Your task to perform on an android device: check data usage Image 0: 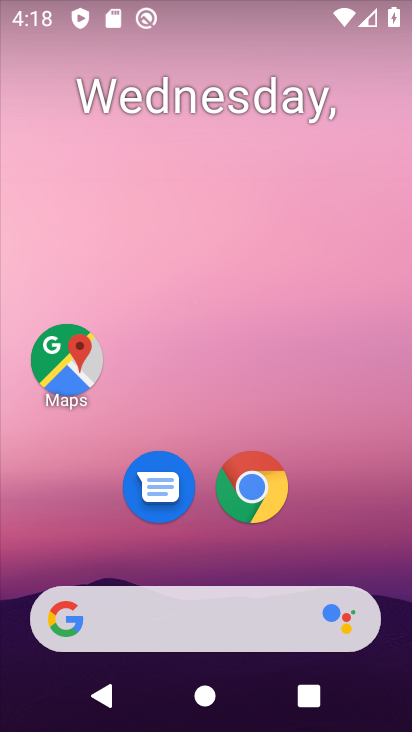
Step 0: drag from (339, 415) to (337, 71)
Your task to perform on an android device: check data usage Image 1: 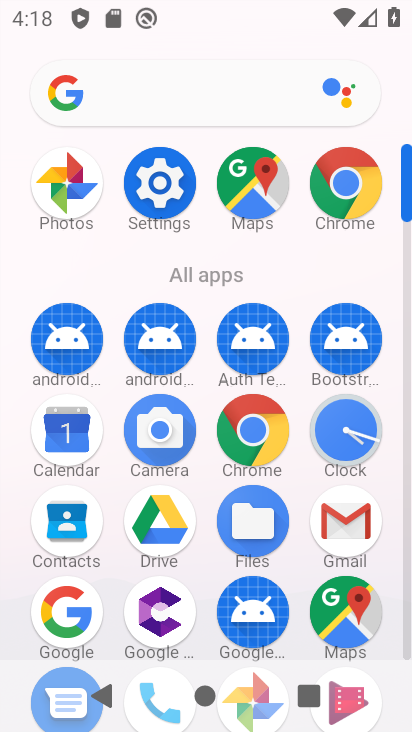
Step 1: click (158, 176)
Your task to perform on an android device: check data usage Image 2: 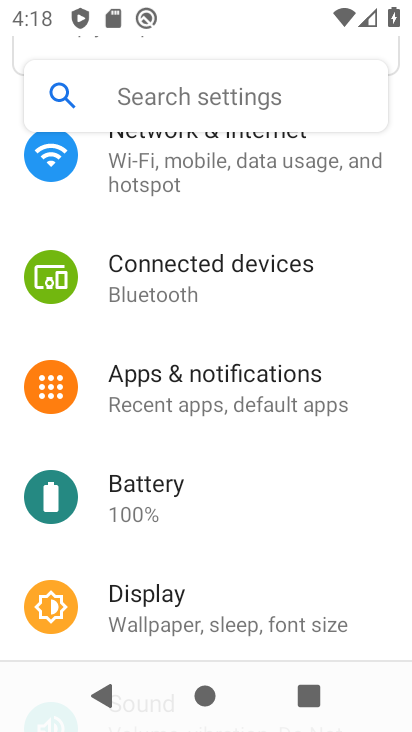
Step 2: drag from (150, 199) to (157, 535)
Your task to perform on an android device: check data usage Image 3: 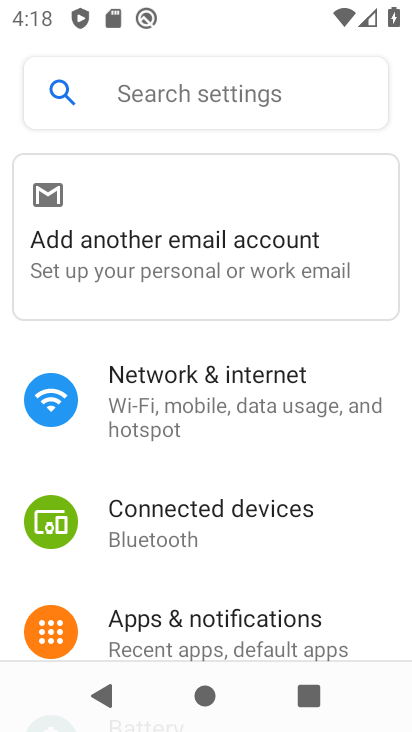
Step 3: click (161, 378)
Your task to perform on an android device: check data usage Image 4: 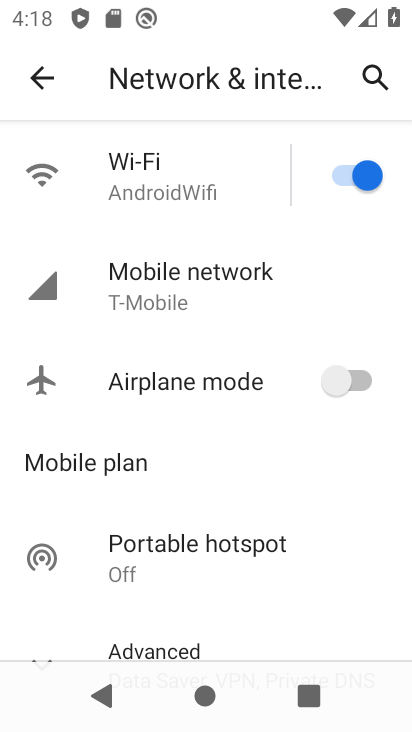
Step 4: click (189, 268)
Your task to perform on an android device: check data usage Image 5: 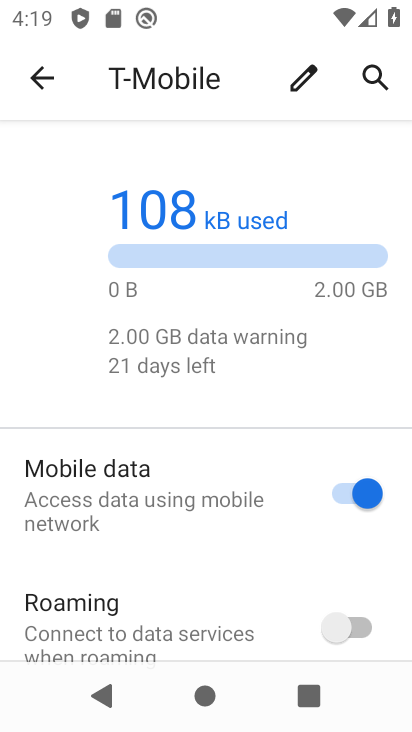
Step 5: task complete